Your task to perform on an android device: Is it going to rain tomorrow? Image 0: 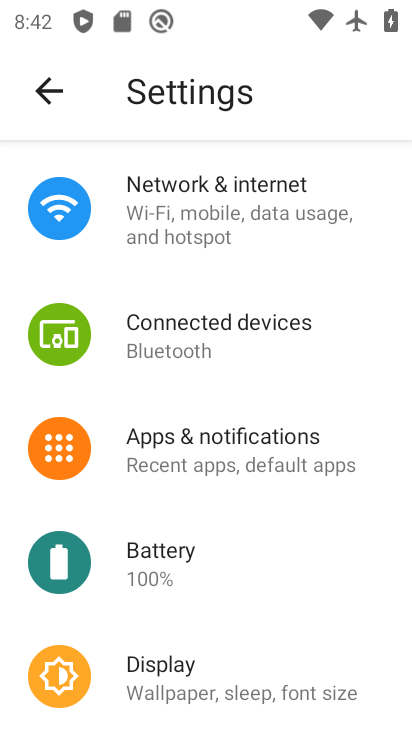
Step 0: press home button
Your task to perform on an android device: Is it going to rain tomorrow? Image 1: 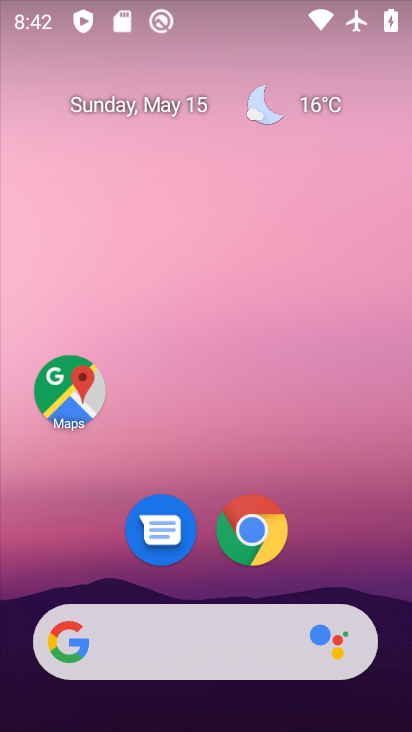
Step 1: click (257, 115)
Your task to perform on an android device: Is it going to rain tomorrow? Image 2: 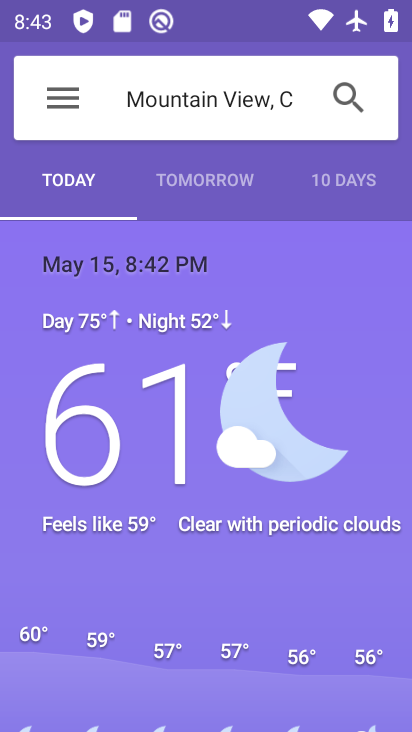
Step 2: click (219, 180)
Your task to perform on an android device: Is it going to rain tomorrow? Image 3: 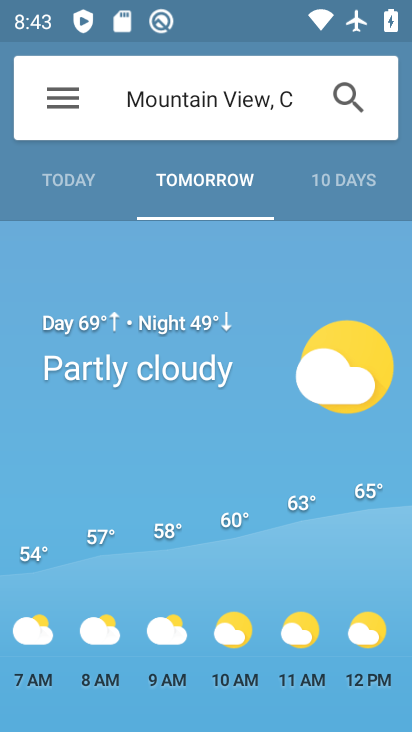
Step 3: task complete